Your task to perform on an android device: check google app version Image 0: 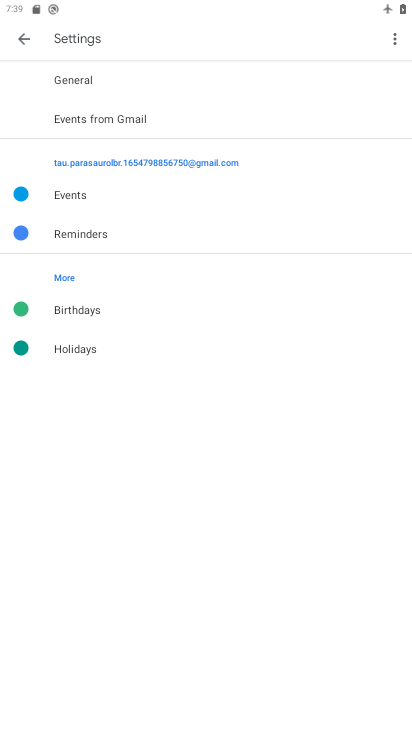
Step 0: press home button
Your task to perform on an android device: check google app version Image 1: 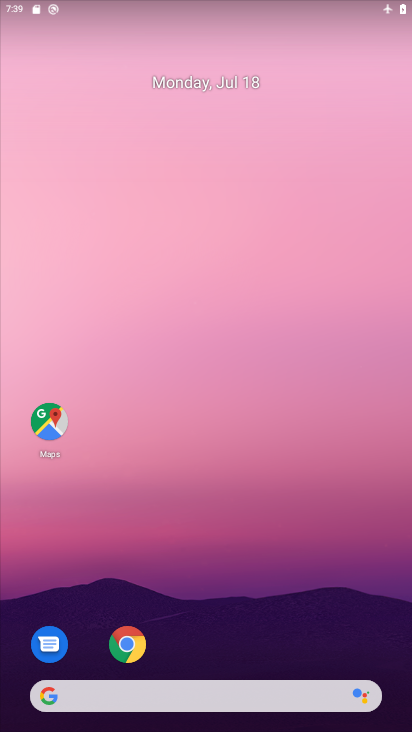
Step 1: drag from (339, 601) to (410, 6)
Your task to perform on an android device: check google app version Image 2: 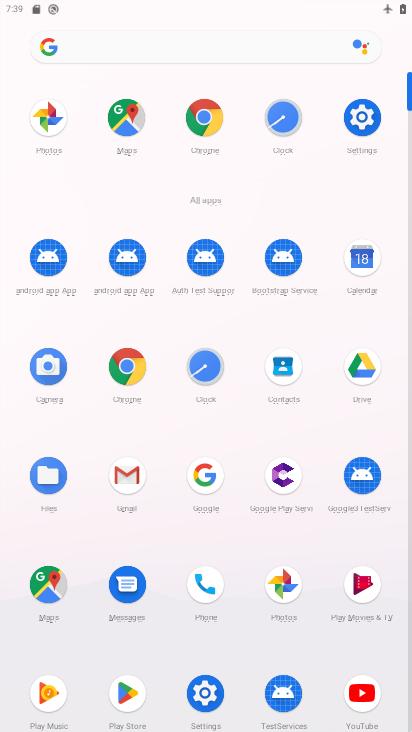
Step 2: click (205, 472)
Your task to perform on an android device: check google app version Image 3: 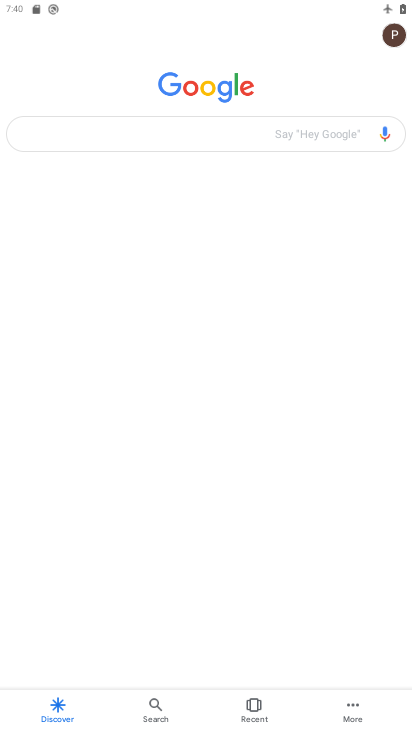
Step 3: click (352, 711)
Your task to perform on an android device: check google app version Image 4: 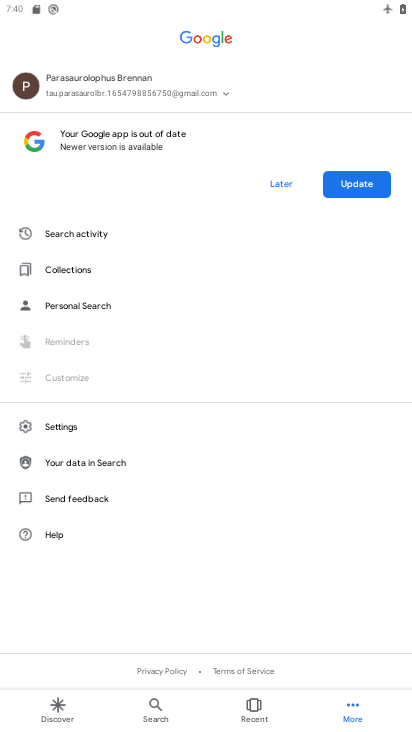
Step 4: click (71, 430)
Your task to perform on an android device: check google app version Image 5: 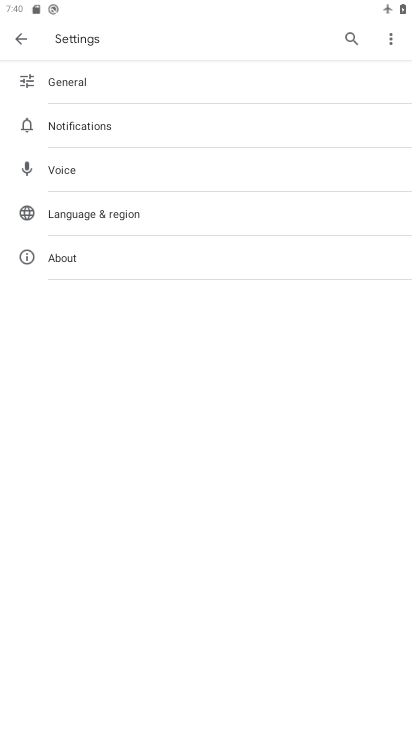
Step 5: click (101, 262)
Your task to perform on an android device: check google app version Image 6: 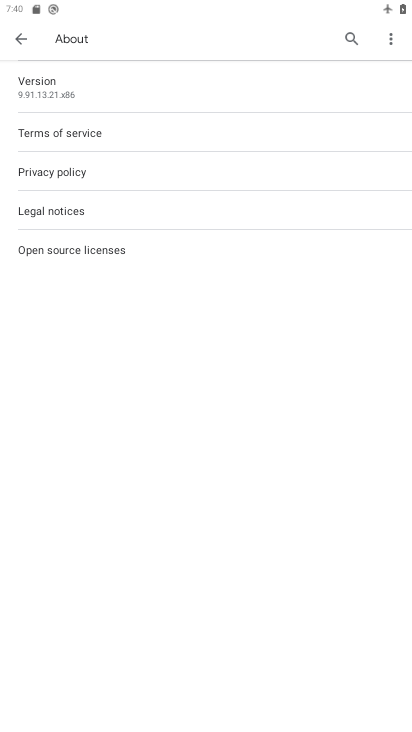
Step 6: task complete